Your task to perform on an android device: turn on showing notifications on the lock screen Image 0: 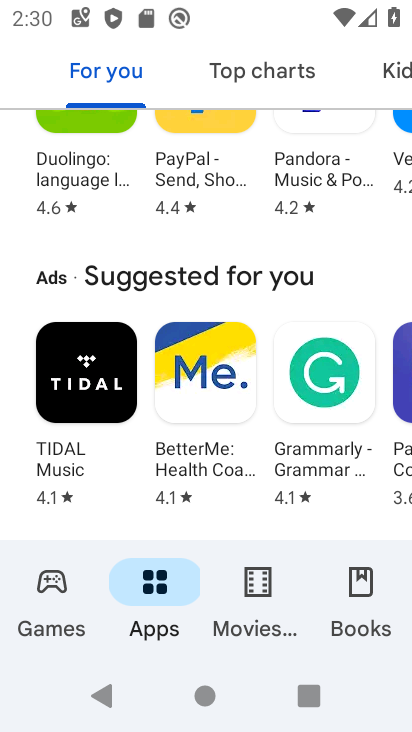
Step 0: press home button
Your task to perform on an android device: turn on showing notifications on the lock screen Image 1: 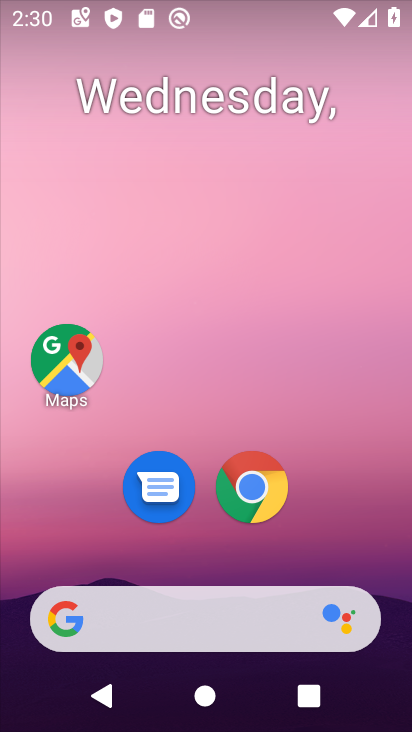
Step 1: drag from (321, 508) to (173, 78)
Your task to perform on an android device: turn on showing notifications on the lock screen Image 2: 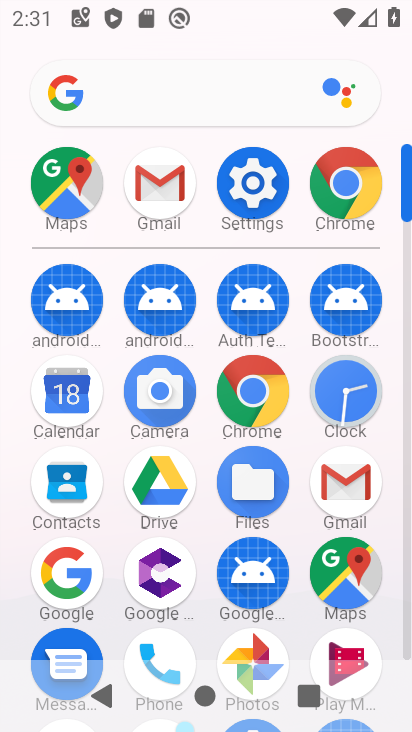
Step 2: click (263, 186)
Your task to perform on an android device: turn on showing notifications on the lock screen Image 3: 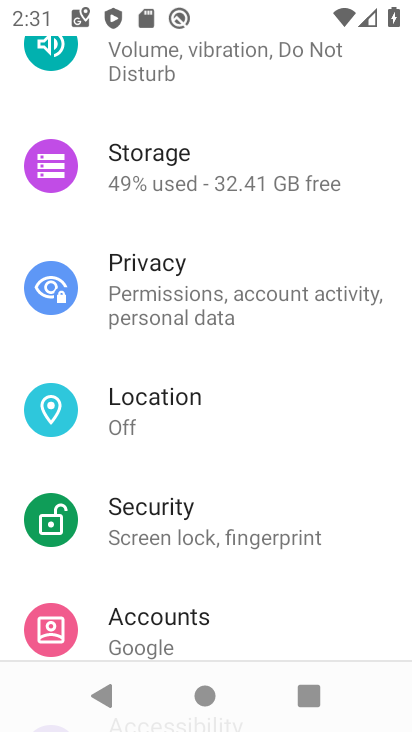
Step 3: drag from (208, 134) to (197, 568)
Your task to perform on an android device: turn on showing notifications on the lock screen Image 4: 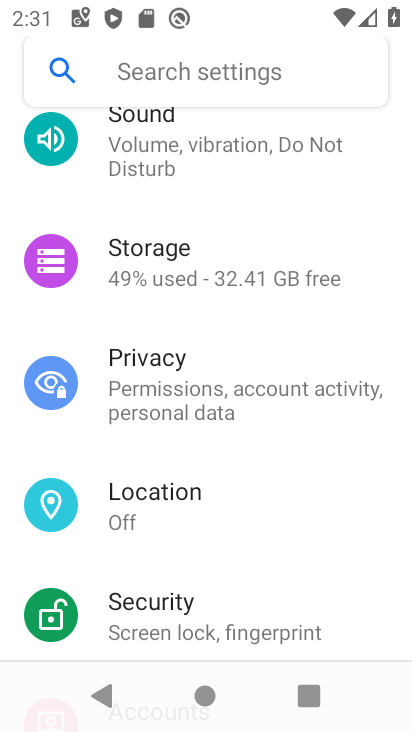
Step 4: drag from (199, 224) to (246, 689)
Your task to perform on an android device: turn on showing notifications on the lock screen Image 5: 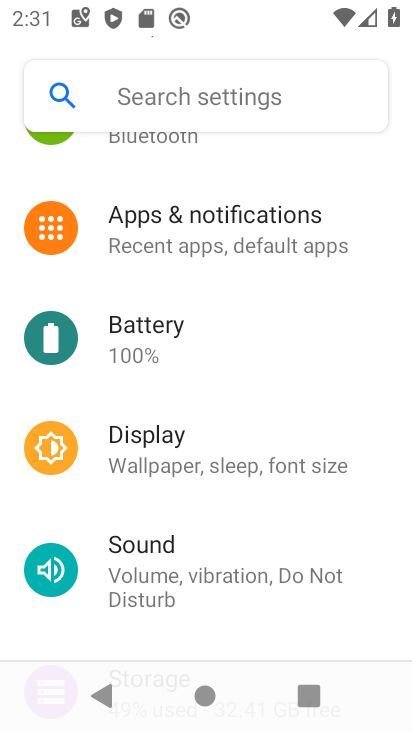
Step 5: click (195, 210)
Your task to perform on an android device: turn on showing notifications on the lock screen Image 6: 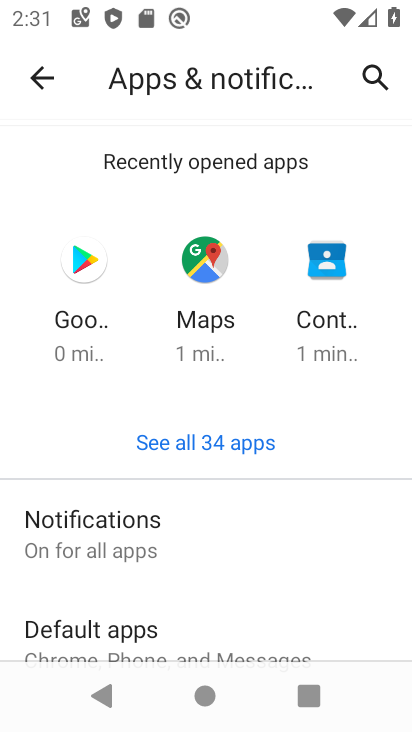
Step 6: drag from (292, 605) to (246, 285)
Your task to perform on an android device: turn on showing notifications on the lock screen Image 7: 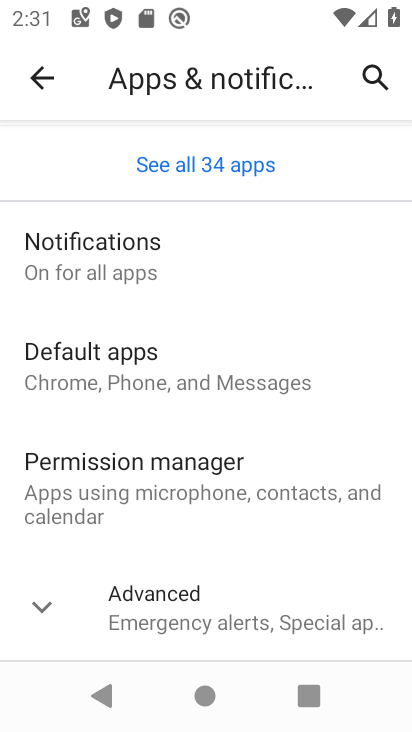
Step 7: click (85, 231)
Your task to perform on an android device: turn on showing notifications on the lock screen Image 8: 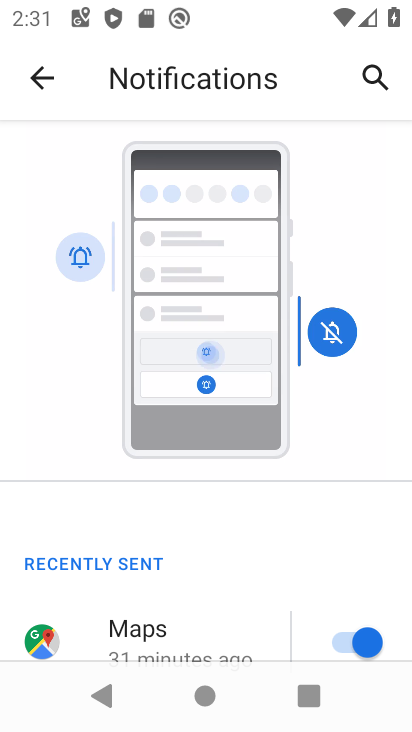
Step 8: drag from (240, 570) to (140, 225)
Your task to perform on an android device: turn on showing notifications on the lock screen Image 9: 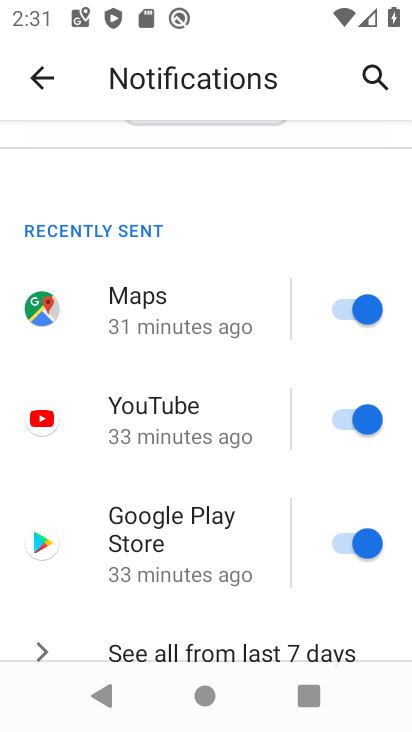
Step 9: drag from (209, 533) to (167, 216)
Your task to perform on an android device: turn on showing notifications on the lock screen Image 10: 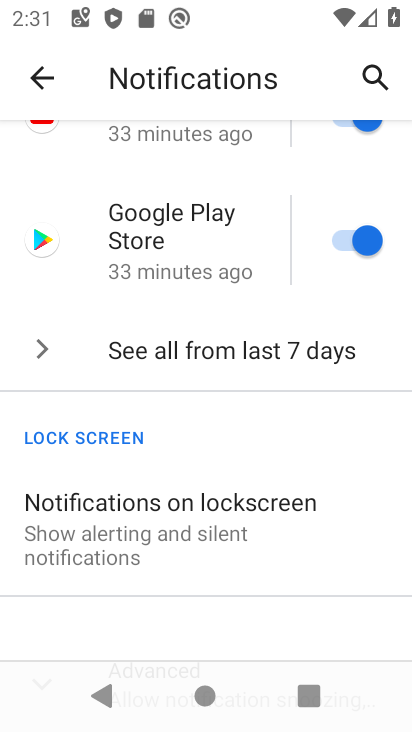
Step 10: click (194, 500)
Your task to perform on an android device: turn on showing notifications on the lock screen Image 11: 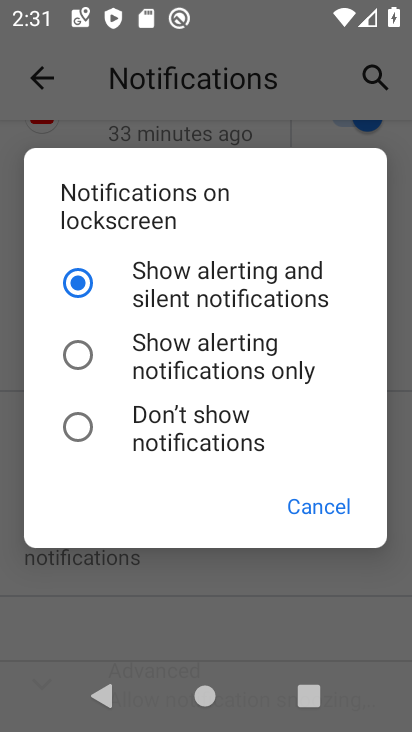
Step 11: task complete